Your task to perform on an android device: Is it going to rain this weekend? Image 0: 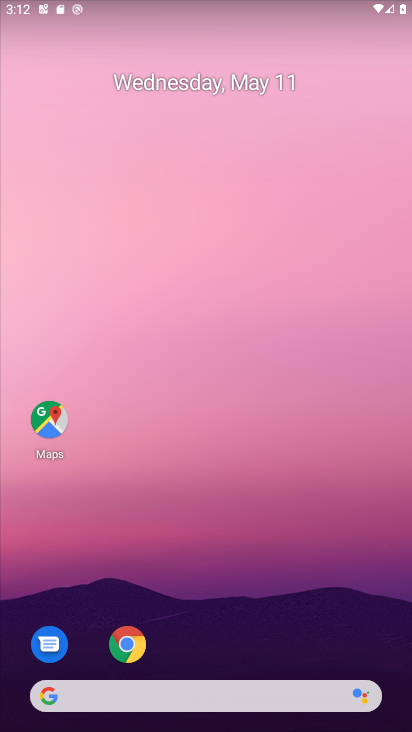
Step 0: drag from (209, 680) to (192, 26)
Your task to perform on an android device: Is it going to rain this weekend? Image 1: 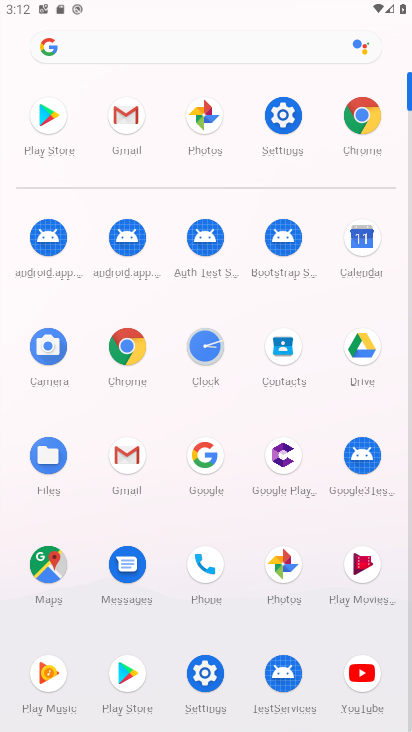
Step 1: drag from (247, 615) to (223, 84)
Your task to perform on an android device: Is it going to rain this weekend? Image 2: 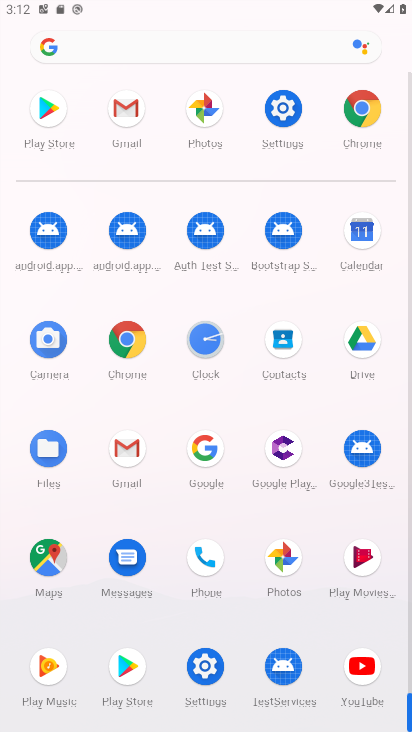
Step 2: click (201, 443)
Your task to perform on an android device: Is it going to rain this weekend? Image 3: 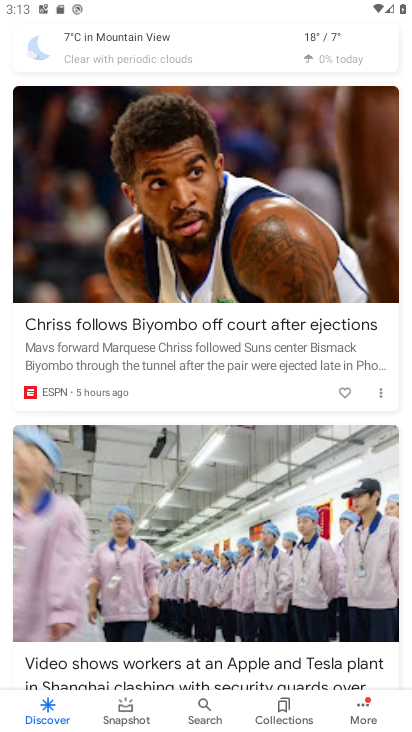
Step 3: click (161, 59)
Your task to perform on an android device: Is it going to rain this weekend? Image 4: 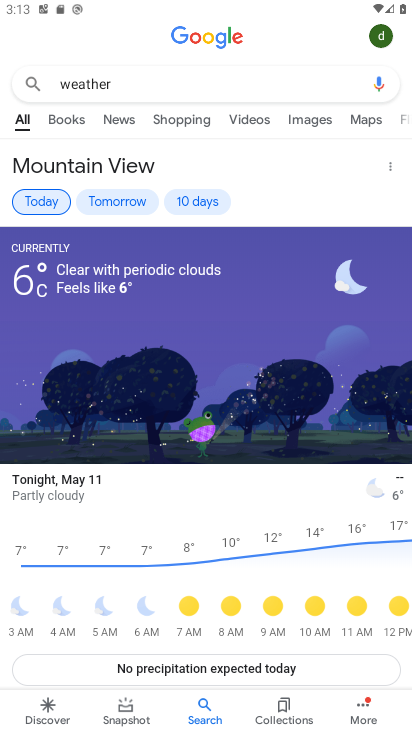
Step 4: click (173, 201)
Your task to perform on an android device: Is it going to rain this weekend? Image 5: 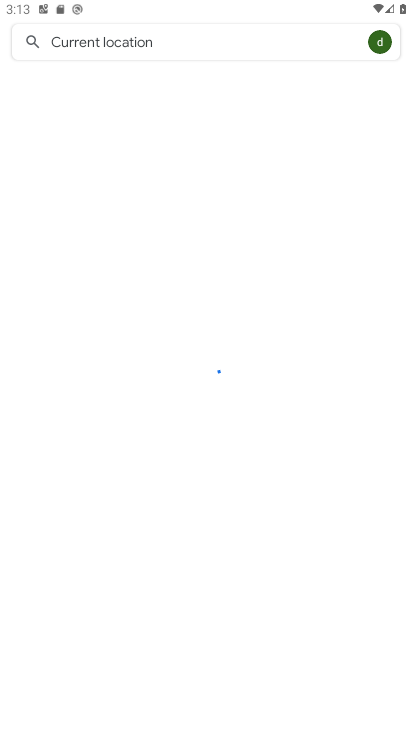
Step 5: task complete